Your task to perform on an android device: turn on javascript in the chrome app Image 0: 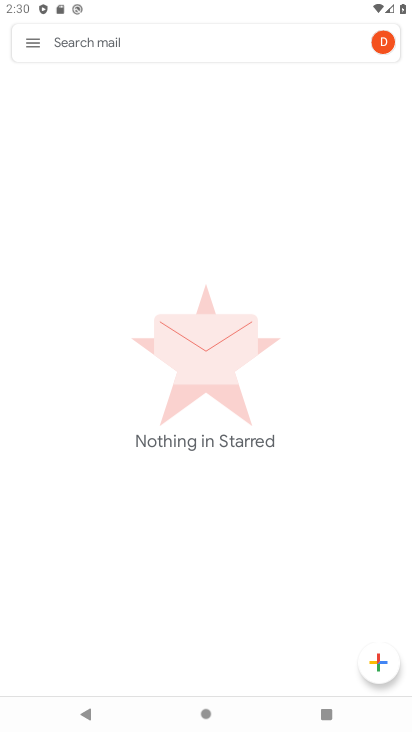
Step 0: press home button
Your task to perform on an android device: turn on javascript in the chrome app Image 1: 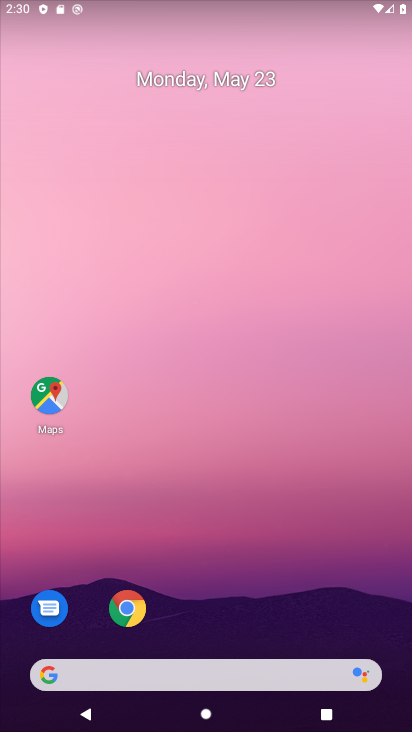
Step 1: drag from (267, 616) to (266, 283)
Your task to perform on an android device: turn on javascript in the chrome app Image 2: 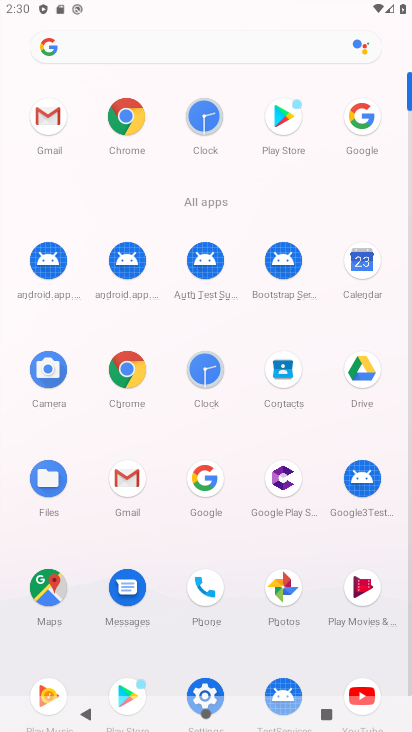
Step 2: click (125, 115)
Your task to perform on an android device: turn on javascript in the chrome app Image 3: 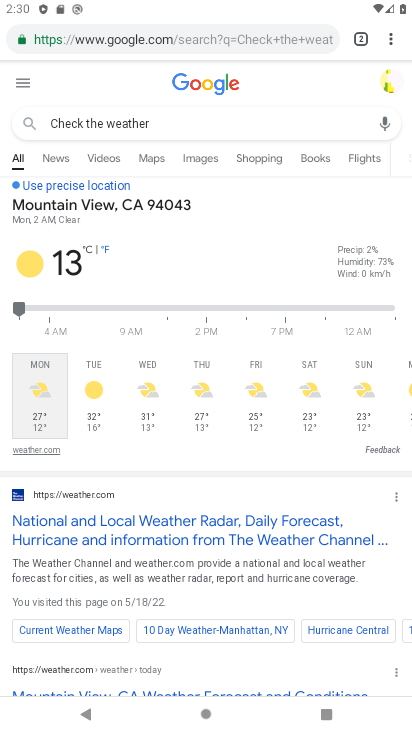
Step 3: click (389, 38)
Your task to perform on an android device: turn on javascript in the chrome app Image 4: 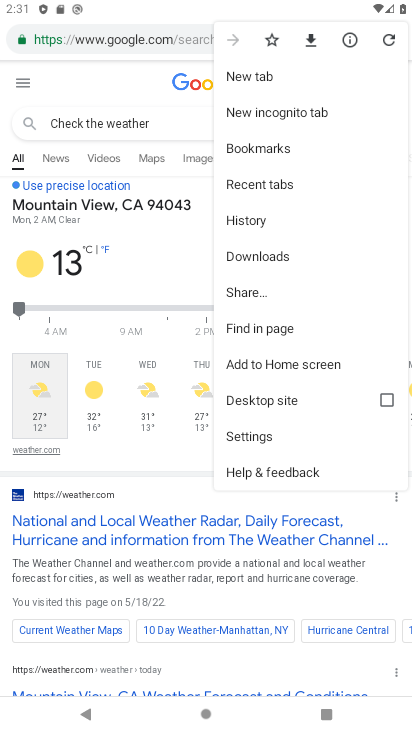
Step 4: click (268, 434)
Your task to perform on an android device: turn on javascript in the chrome app Image 5: 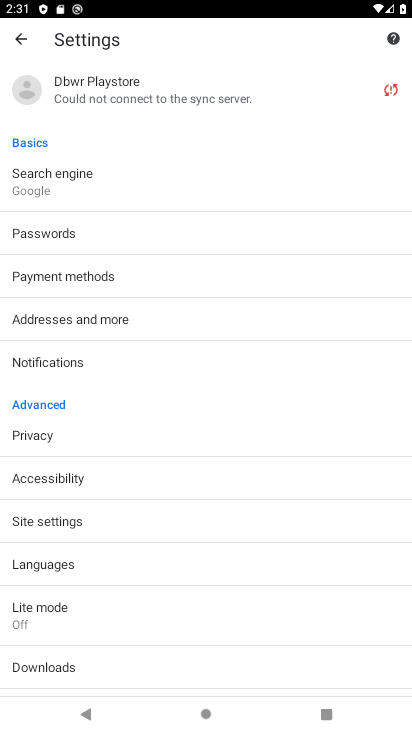
Step 5: click (89, 517)
Your task to perform on an android device: turn on javascript in the chrome app Image 6: 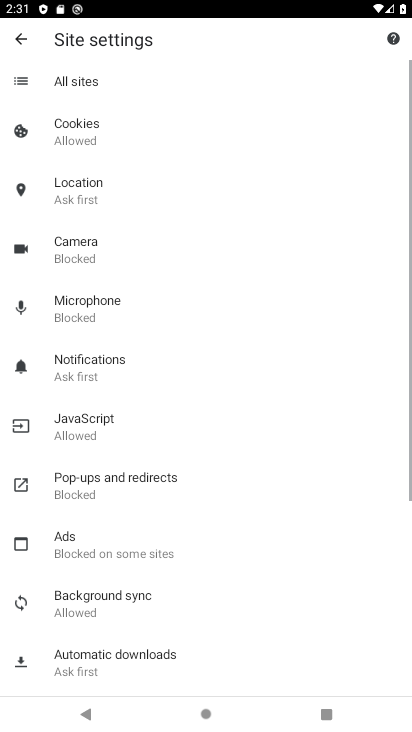
Step 6: click (97, 439)
Your task to perform on an android device: turn on javascript in the chrome app Image 7: 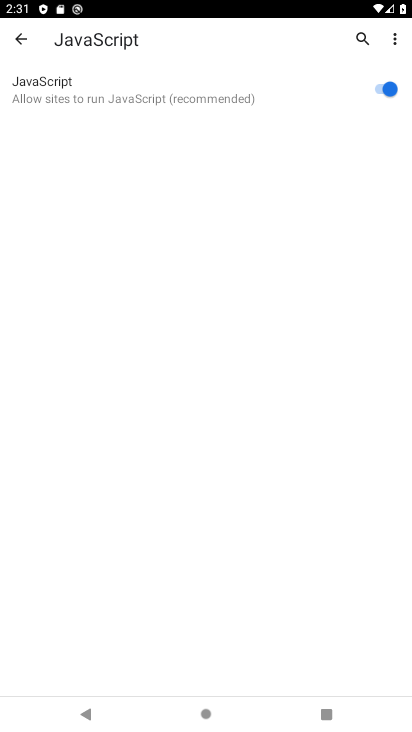
Step 7: task complete